Your task to perform on an android device: Open calendar and show me the first week of next month Image 0: 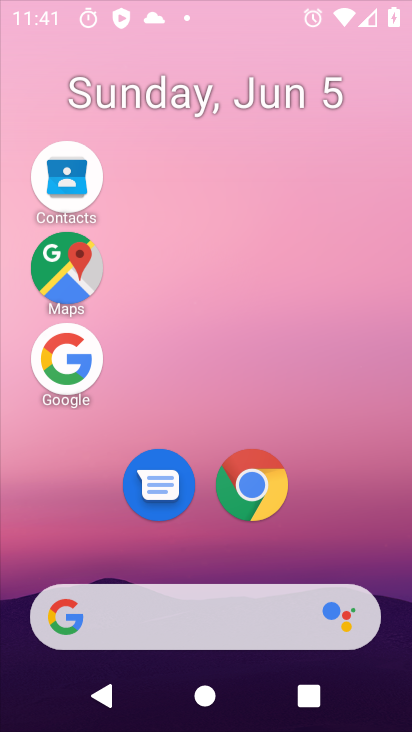
Step 0: click (150, 153)
Your task to perform on an android device: Open calendar and show me the first week of next month Image 1: 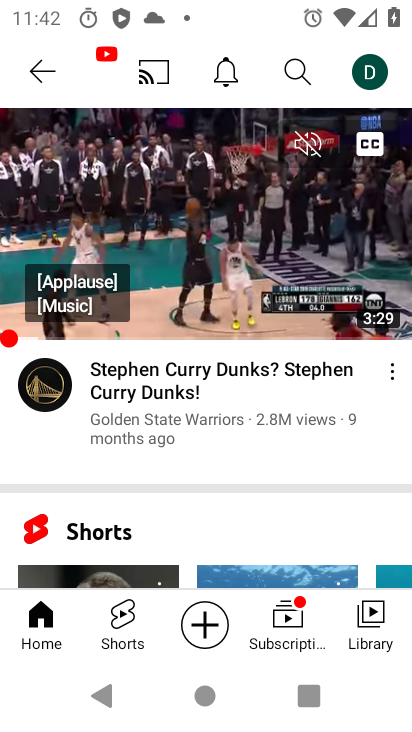
Step 1: press home button
Your task to perform on an android device: Open calendar and show me the first week of next month Image 2: 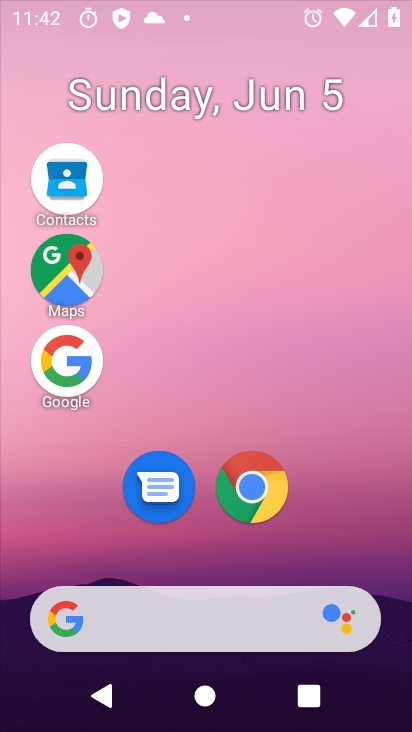
Step 2: drag from (280, 637) to (293, 75)
Your task to perform on an android device: Open calendar and show me the first week of next month Image 3: 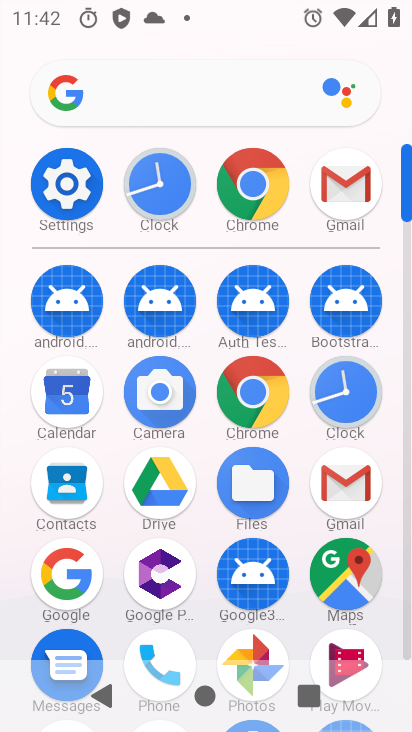
Step 3: click (49, 408)
Your task to perform on an android device: Open calendar and show me the first week of next month Image 4: 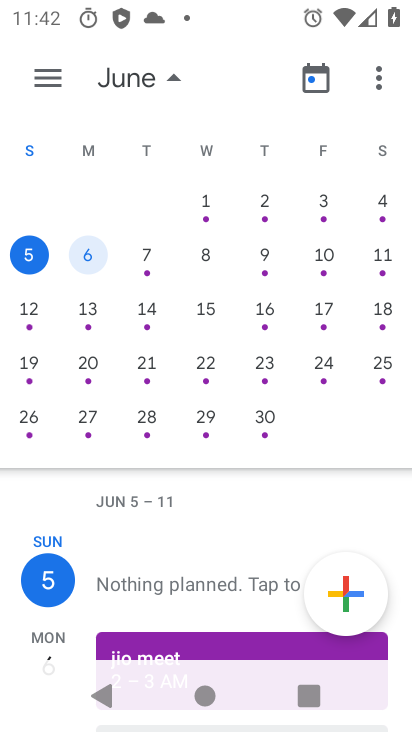
Step 4: drag from (355, 307) to (3, 299)
Your task to perform on an android device: Open calendar and show me the first week of next month Image 5: 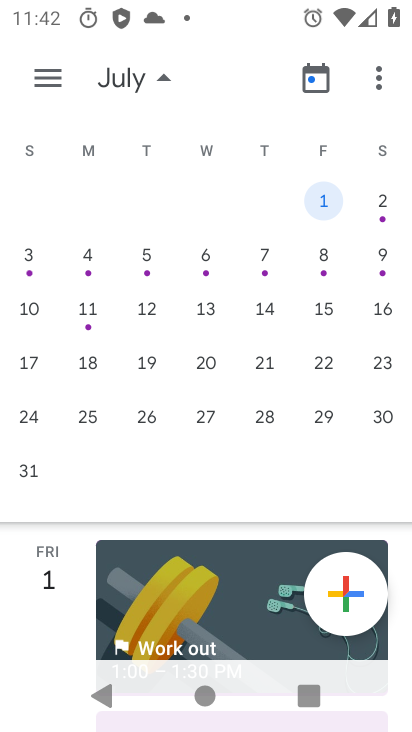
Step 5: click (40, 259)
Your task to perform on an android device: Open calendar and show me the first week of next month Image 6: 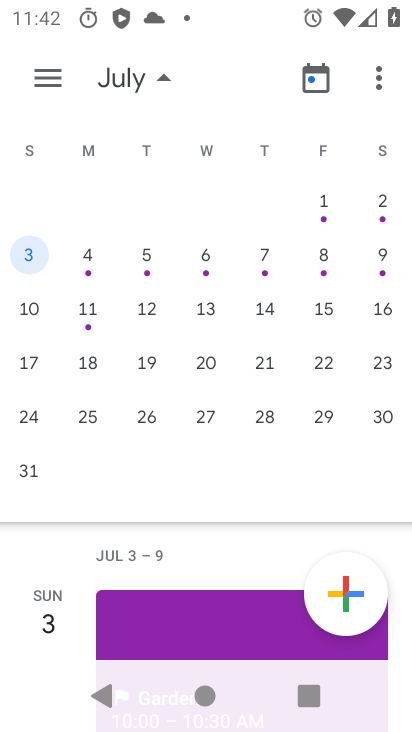
Step 6: task complete